Your task to perform on an android device: remove spam from my inbox in the gmail app Image 0: 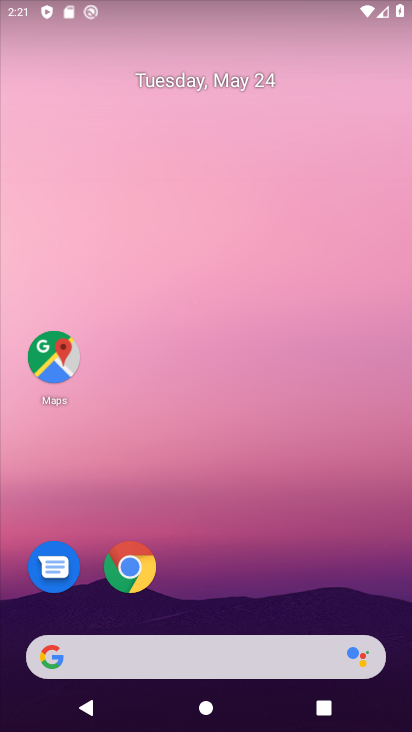
Step 0: drag from (238, 609) to (306, 108)
Your task to perform on an android device: remove spam from my inbox in the gmail app Image 1: 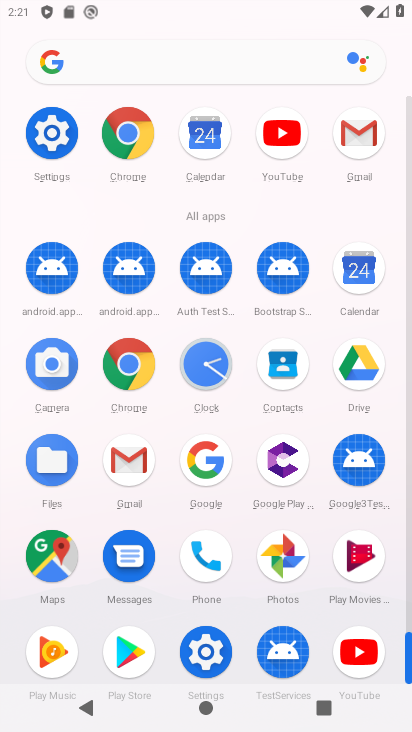
Step 1: click (357, 147)
Your task to perform on an android device: remove spam from my inbox in the gmail app Image 2: 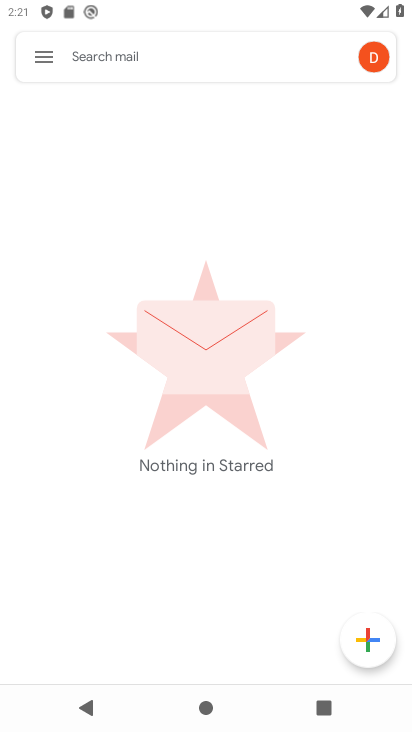
Step 2: click (35, 57)
Your task to perform on an android device: remove spam from my inbox in the gmail app Image 3: 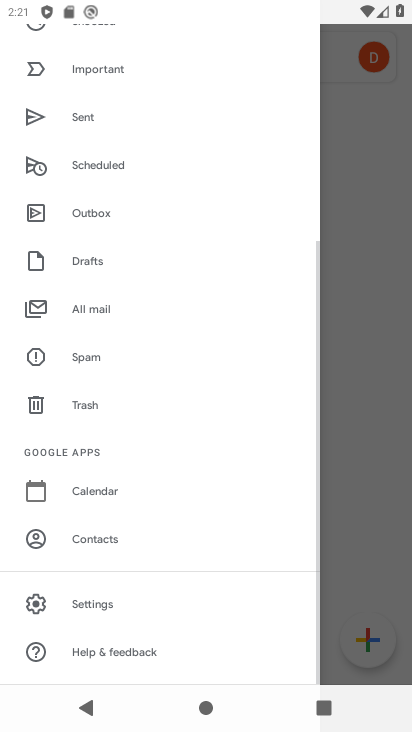
Step 3: click (80, 363)
Your task to perform on an android device: remove spam from my inbox in the gmail app Image 4: 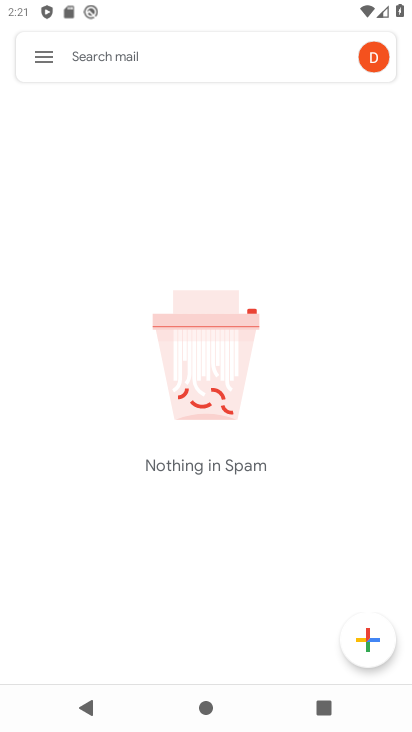
Step 4: task complete